Your task to perform on an android device: Open wifi settings Image 0: 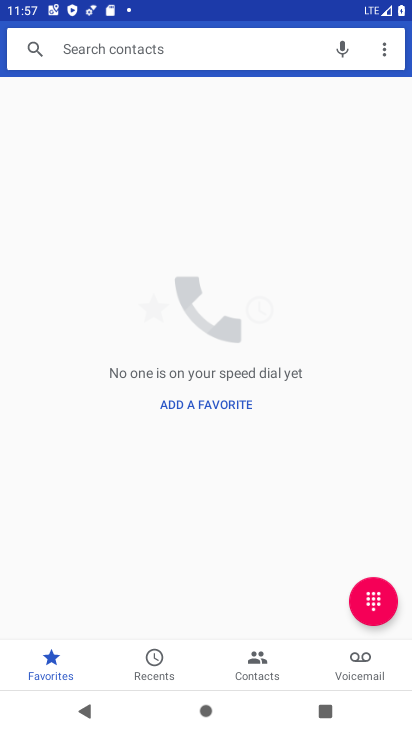
Step 0: press home button
Your task to perform on an android device: Open wifi settings Image 1: 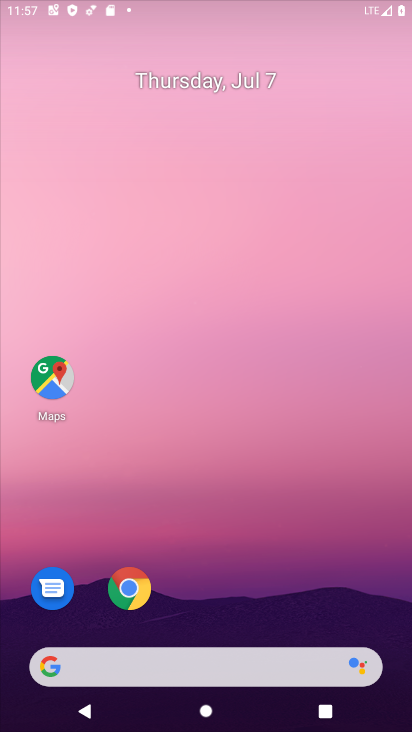
Step 1: drag from (235, 518) to (252, 129)
Your task to perform on an android device: Open wifi settings Image 2: 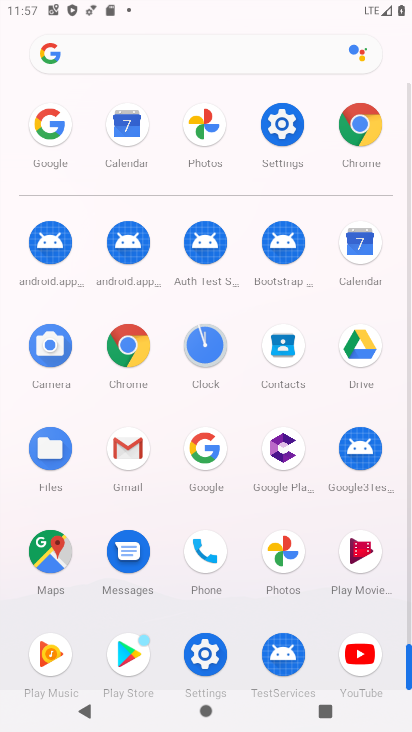
Step 2: click (284, 121)
Your task to perform on an android device: Open wifi settings Image 3: 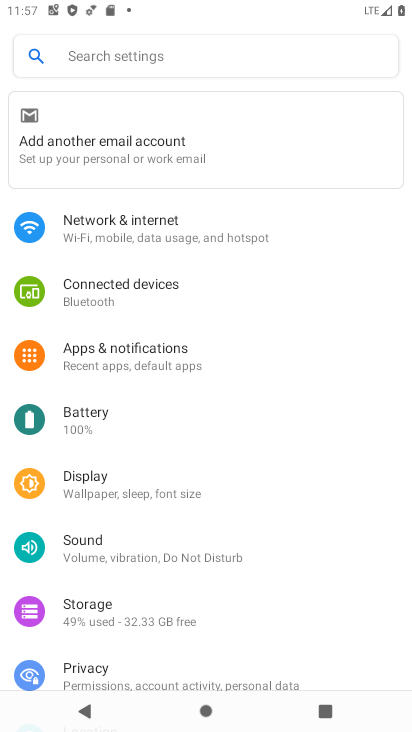
Step 3: click (140, 219)
Your task to perform on an android device: Open wifi settings Image 4: 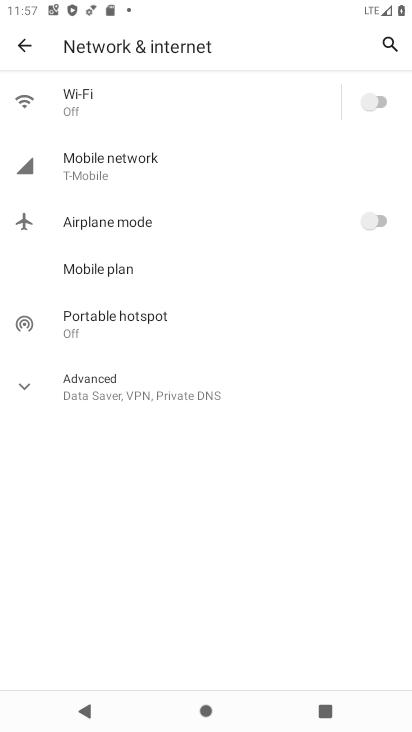
Step 4: click (368, 98)
Your task to perform on an android device: Open wifi settings Image 5: 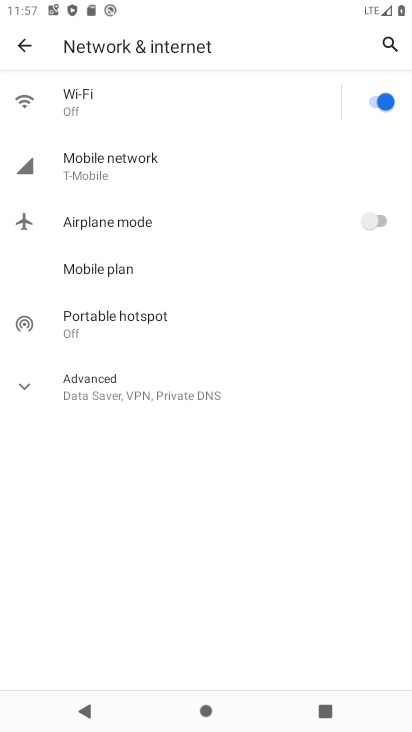
Step 5: click (186, 97)
Your task to perform on an android device: Open wifi settings Image 6: 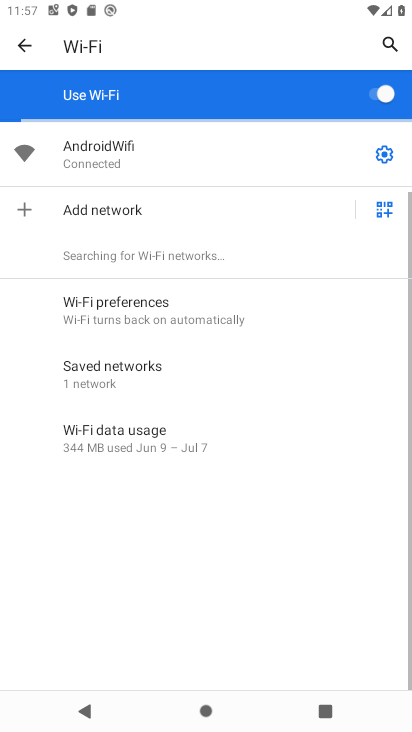
Step 6: click (314, 156)
Your task to perform on an android device: Open wifi settings Image 7: 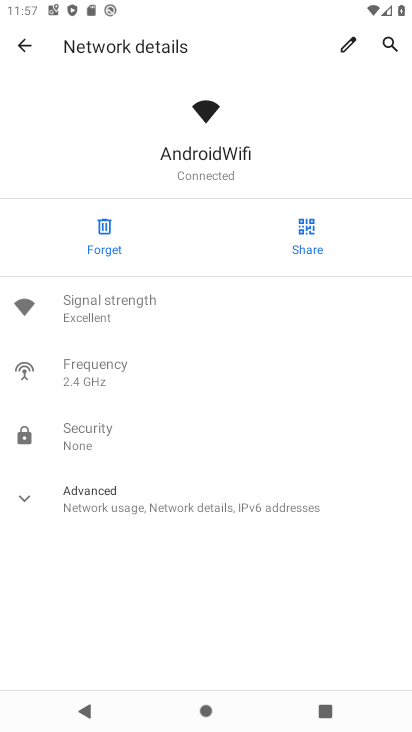
Step 7: task complete